Your task to perform on an android device: Go to sound settings Image 0: 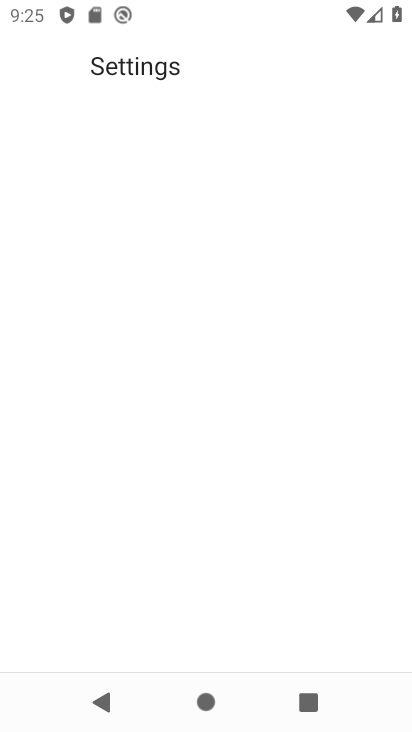
Step 0: drag from (329, 554) to (301, 162)
Your task to perform on an android device: Go to sound settings Image 1: 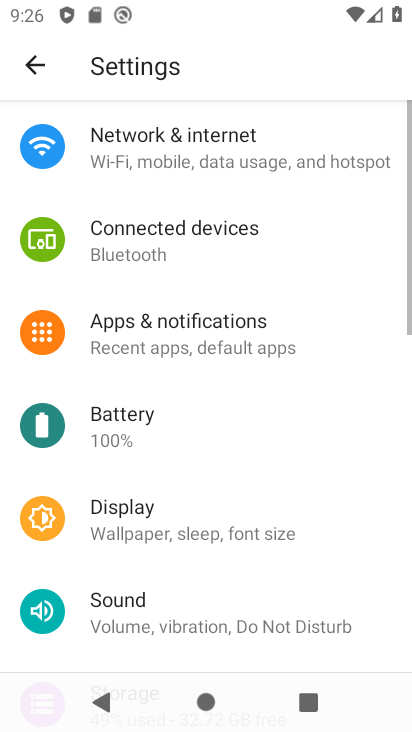
Step 1: click (129, 615)
Your task to perform on an android device: Go to sound settings Image 2: 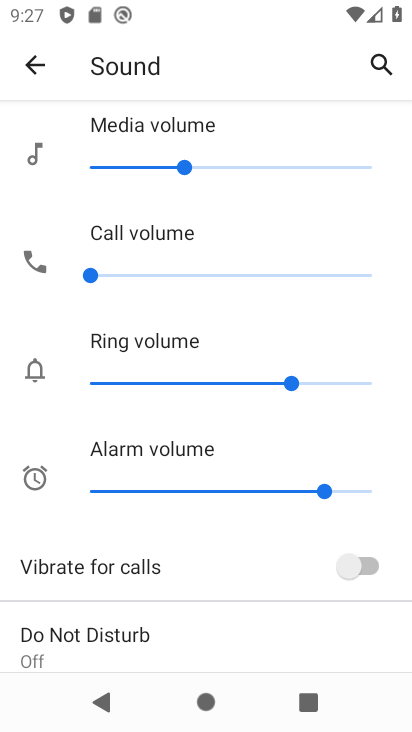
Step 2: task complete